Your task to perform on an android device: Search for razer naga on newegg.com, select the first entry, add it to the cart, then select checkout. Image 0: 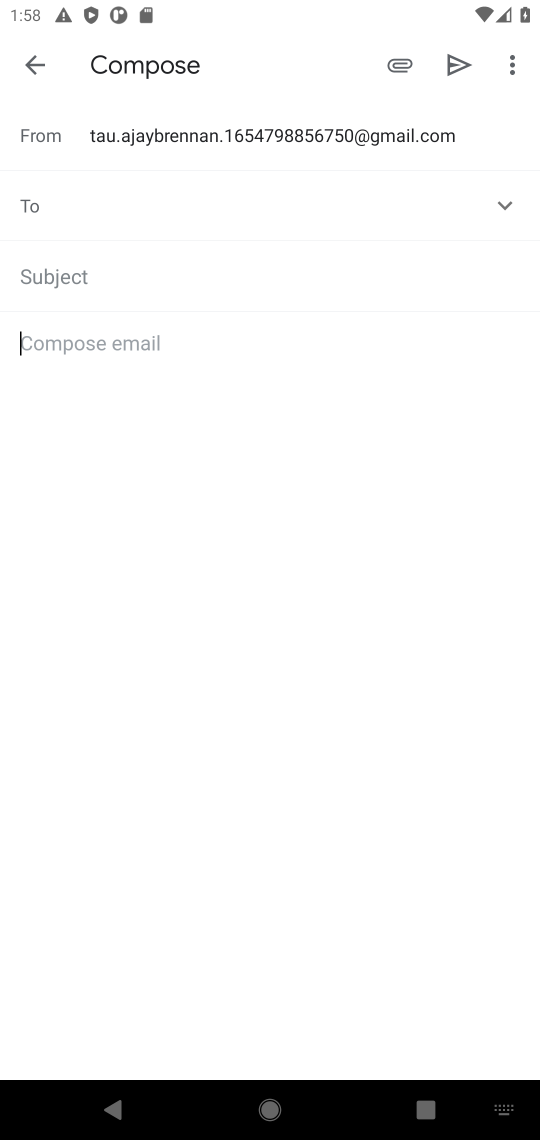
Step 0: press home button
Your task to perform on an android device: Search for razer naga on newegg.com, select the first entry, add it to the cart, then select checkout. Image 1: 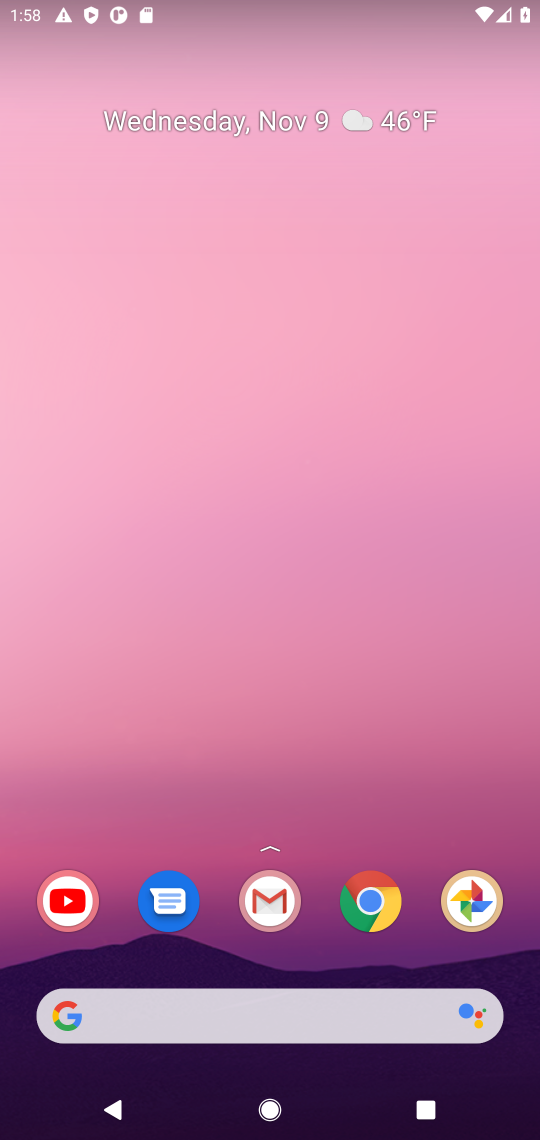
Step 1: click (364, 897)
Your task to perform on an android device: Search for razer naga on newegg.com, select the first entry, add it to the cart, then select checkout. Image 2: 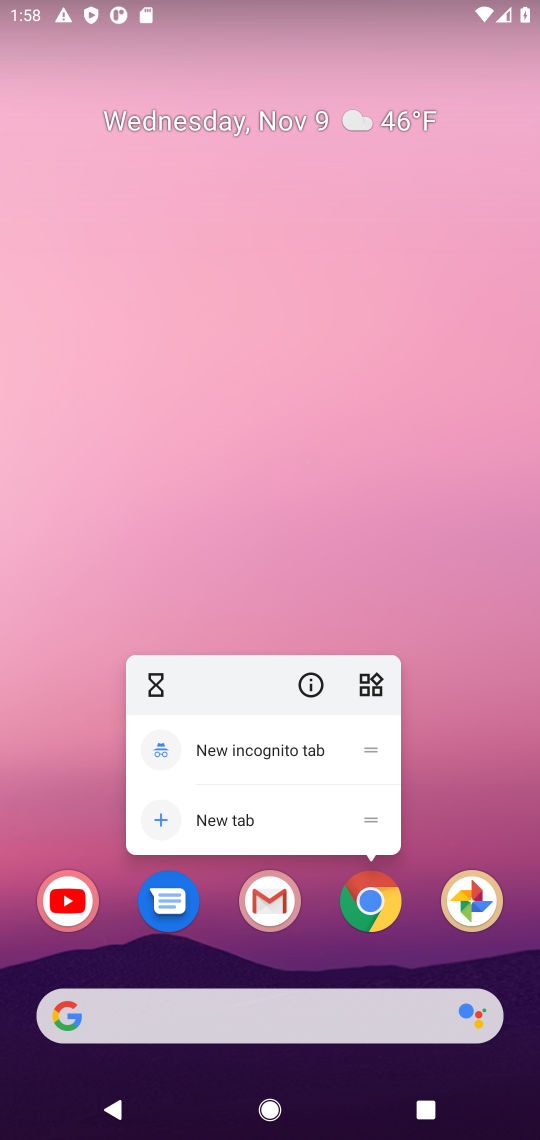
Step 2: click (364, 897)
Your task to perform on an android device: Search for razer naga on newegg.com, select the first entry, add it to the cart, then select checkout. Image 3: 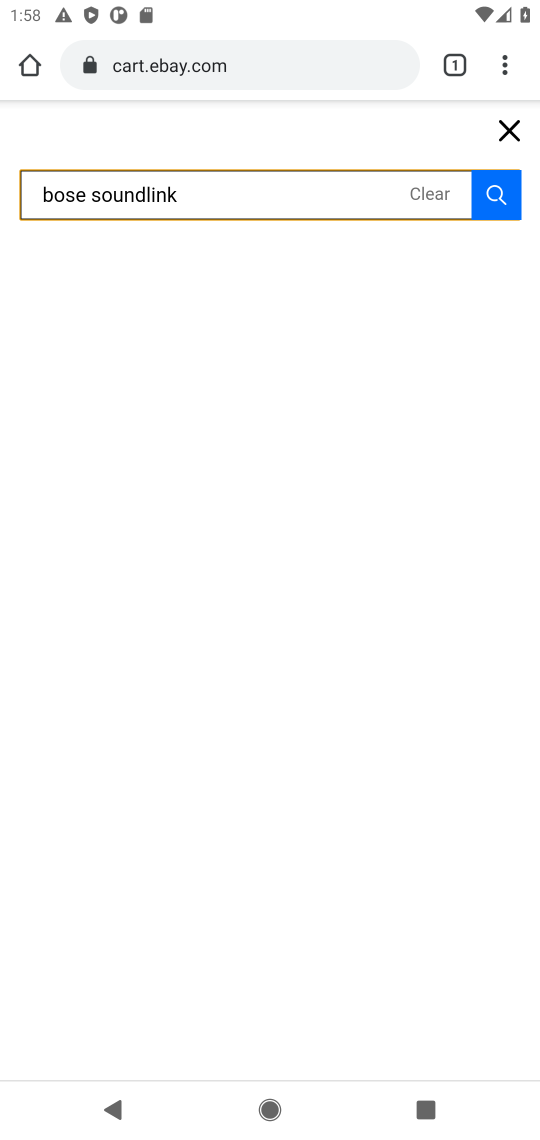
Step 3: click (239, 72)
Your task to perform on an android device: Search for razer naga on newegg.com, select the first entry, add it to the cart, then select checkout. Image 4: 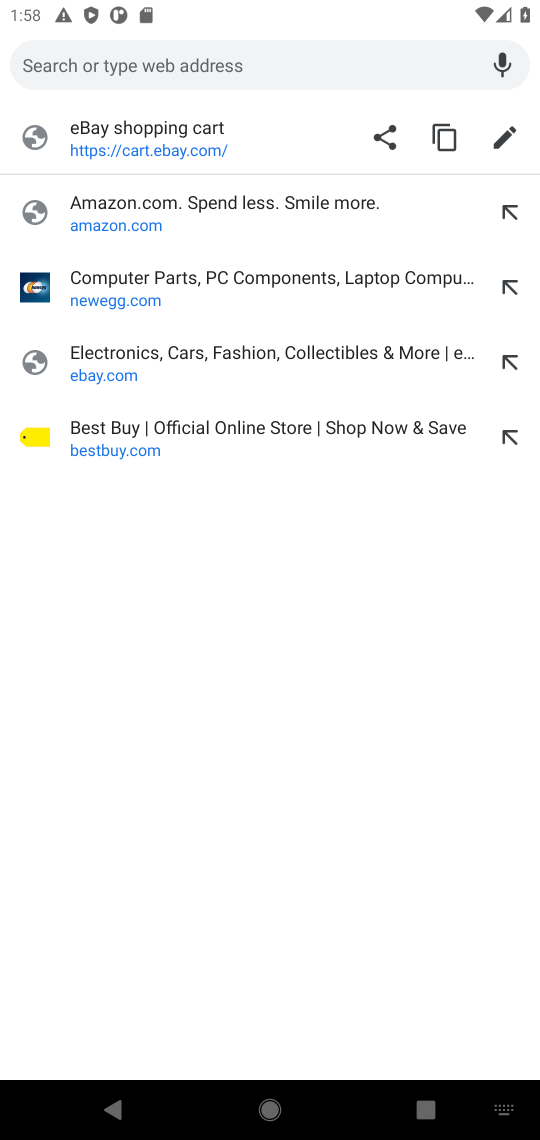
Step 4: type "newegg.com"
Your task to perform on an android device: Search for razer naga on newegg.com, select the first entry, add it to the cart, then select checkout. Image 5: 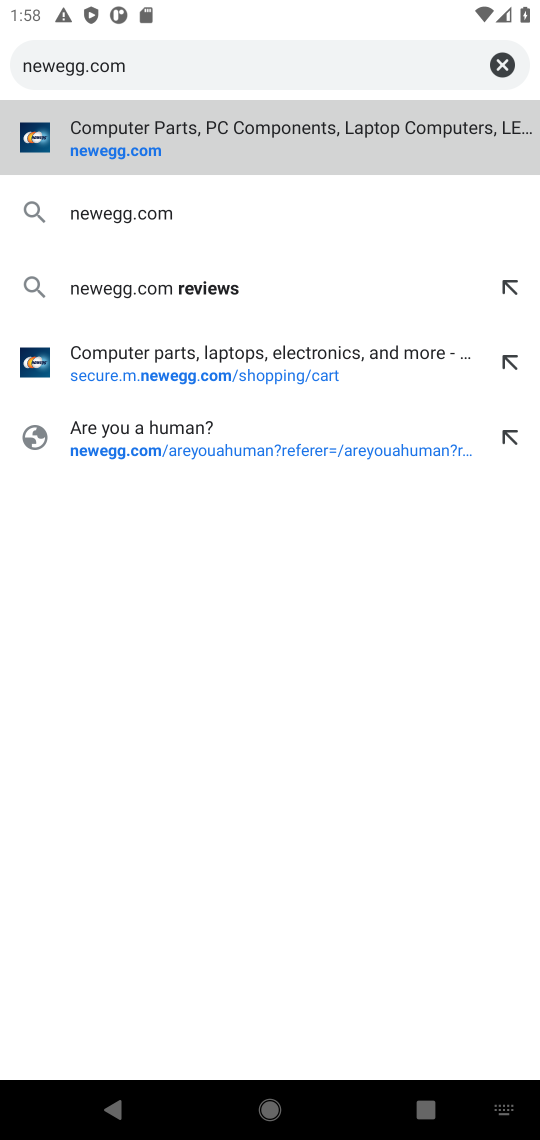
Step 5: press enter
Your task to perform on an android device: Search for razer naga on newegg.com, select the first entry, add it to the cart, then select checkout. Image 6: 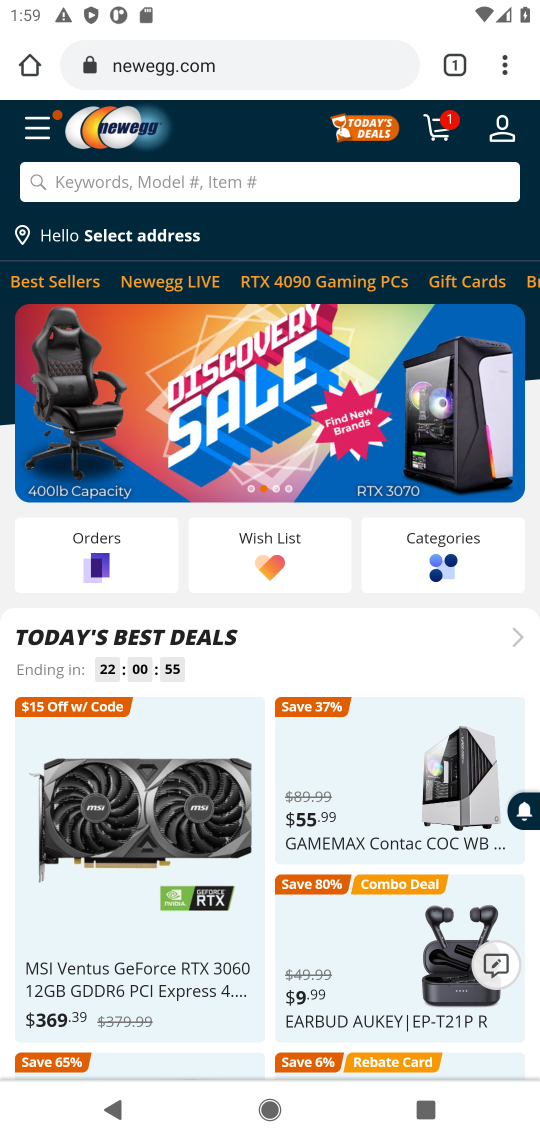
Step 6: click (352, 179)
Your task to perform on an android device: Search for razer naga on newegg.com, select the first entry, add it to the cart, then select checkout. Image 7: 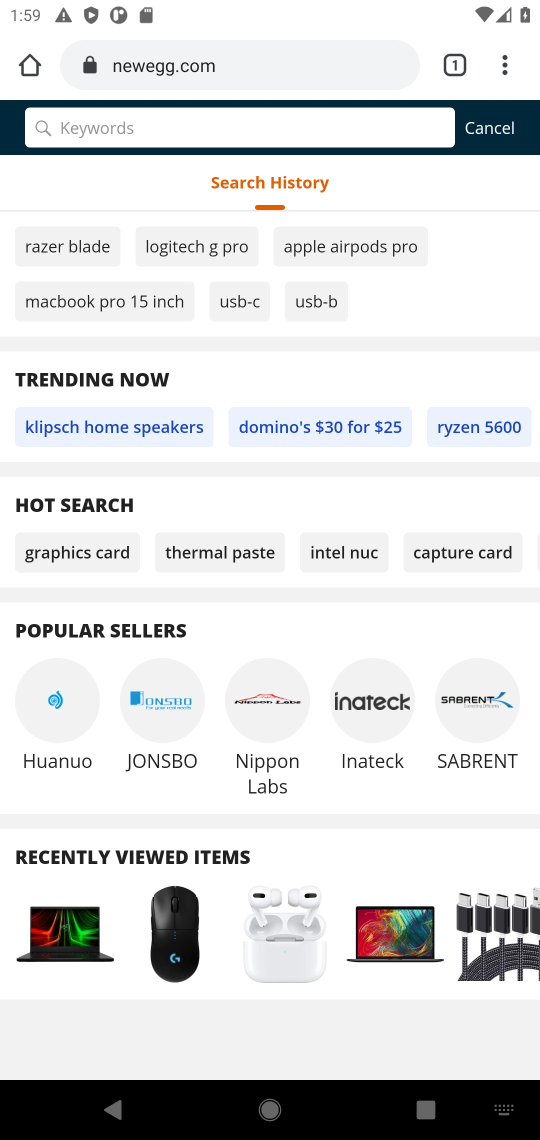
Step 7: type "razer naga"
Your task to perform on an android device: Search for razer naga on newegg.com, select the first entry, add it to the cart, then select checkout. Image 8: 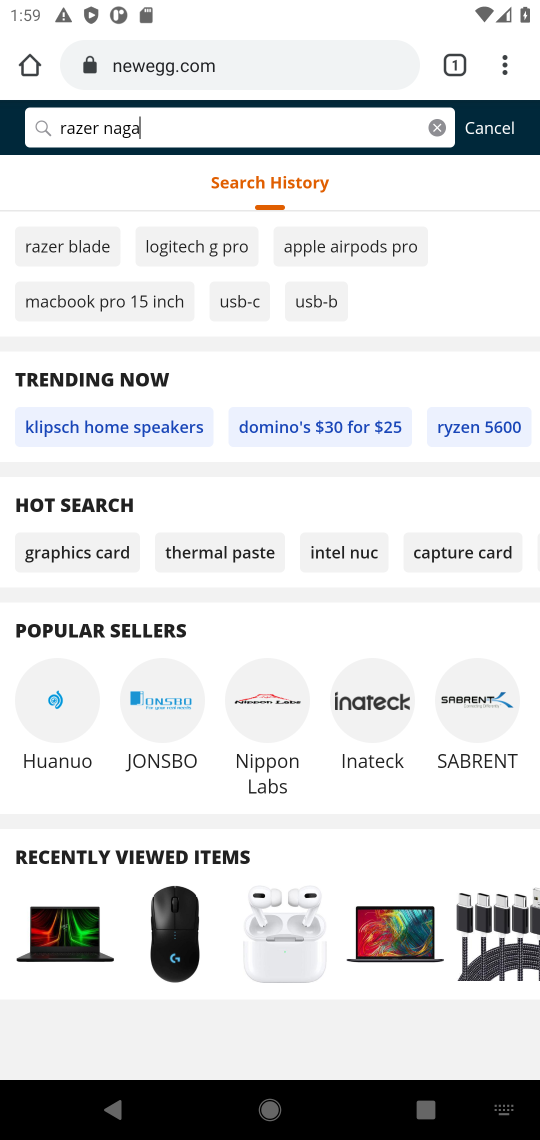
Step 8: press enter
Your task to perform on an android device: Search for razer naga on newegg.com, select the first entry, add it to the cart, then select checkout. Image 9: 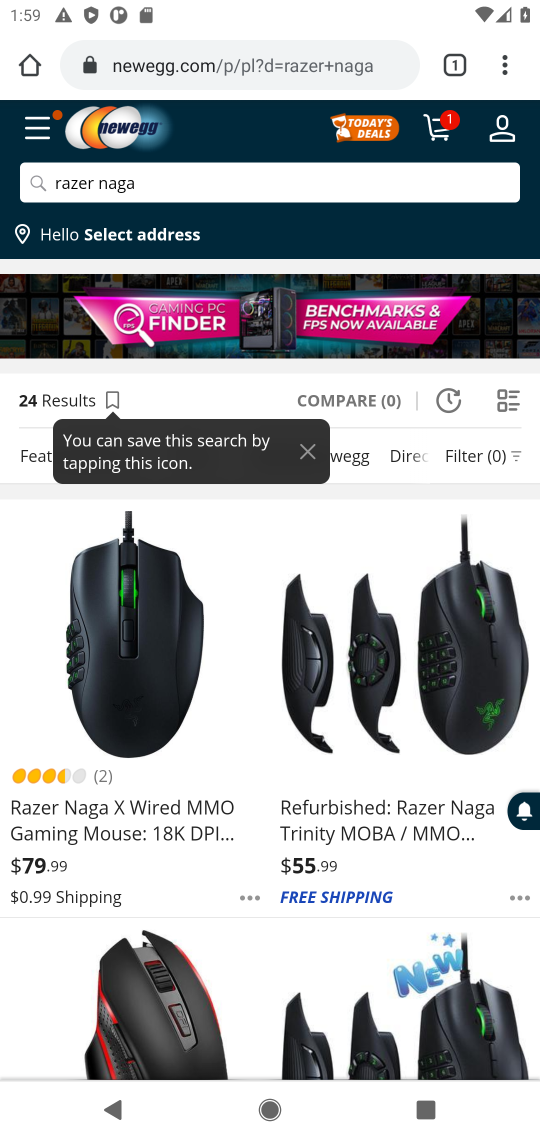
Step 9: click (160, 605)
Your task to perform on an android device: Search for razer naga on newegg.com, select the first entry, add it to the cart, then select checkout. Image 10: 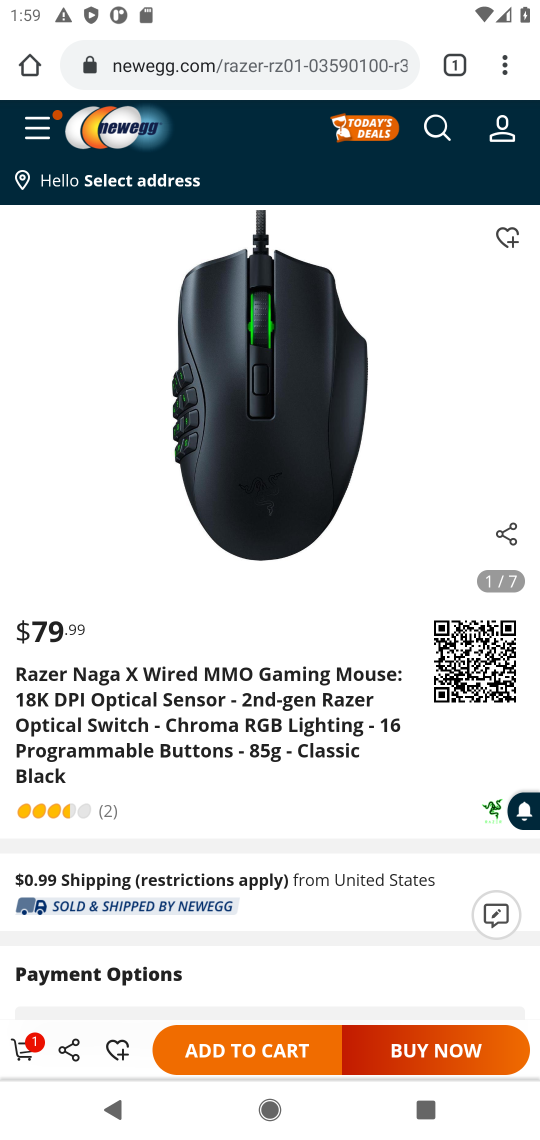
Step 10: click (215, 1047)
Your task to perform on an android device: Search for razer naga on newegg.com, select the first entry, add it to the cart, then select checkout. Image 11: 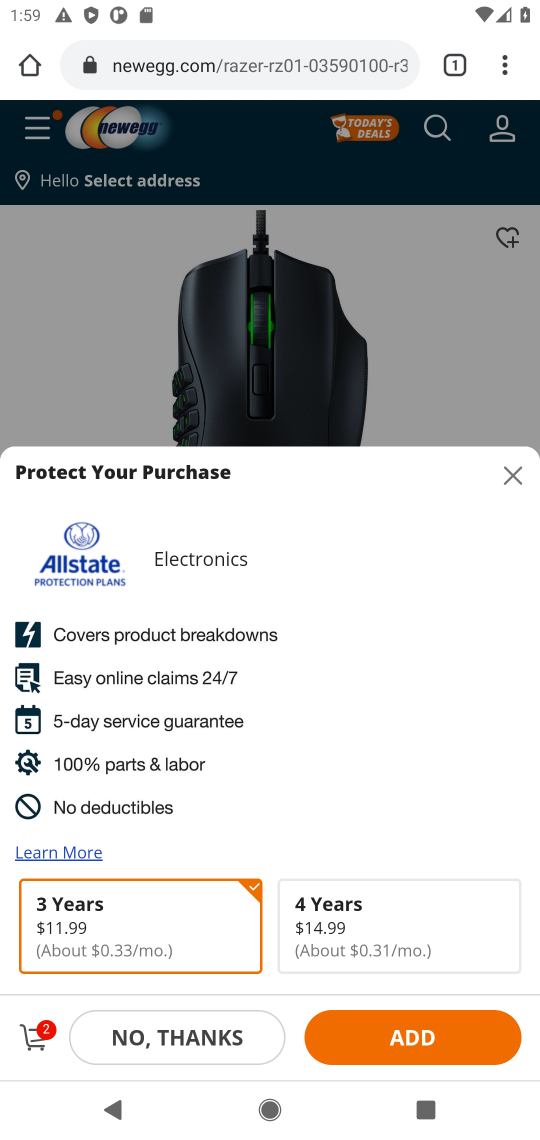
Step 11: click (506, 464)
Your task to perform on an android device: Search for razer naga on newegg.com, select the first entry, add it to the cart, then select checkout. Image 12: 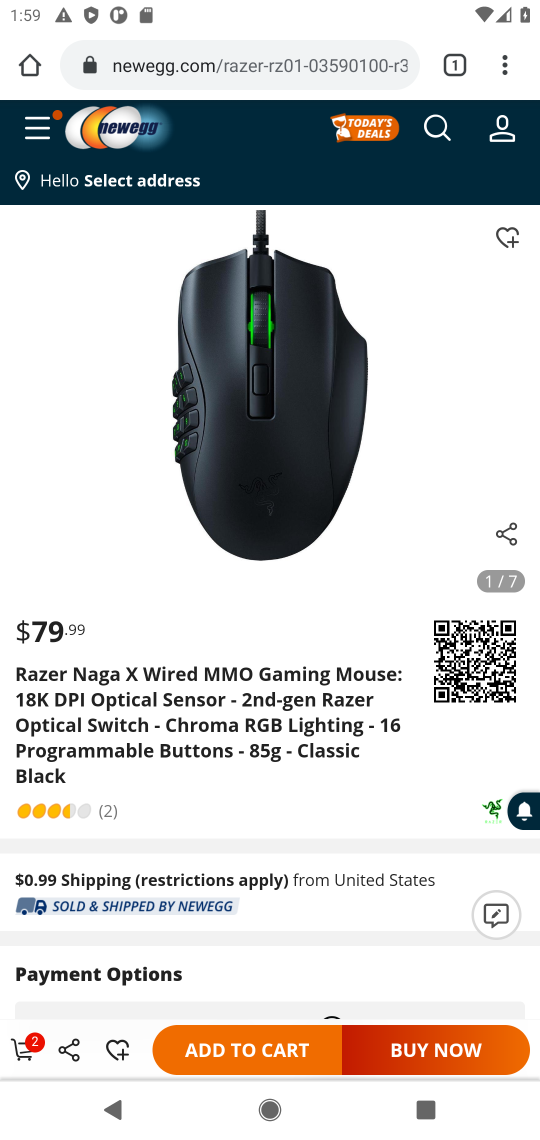
Step 12: click (23, 1056)
Your task to perform on an android device: Search for razer naga on newegg.com, select the first entry, add it to the cart, then select checkout. Image 13: 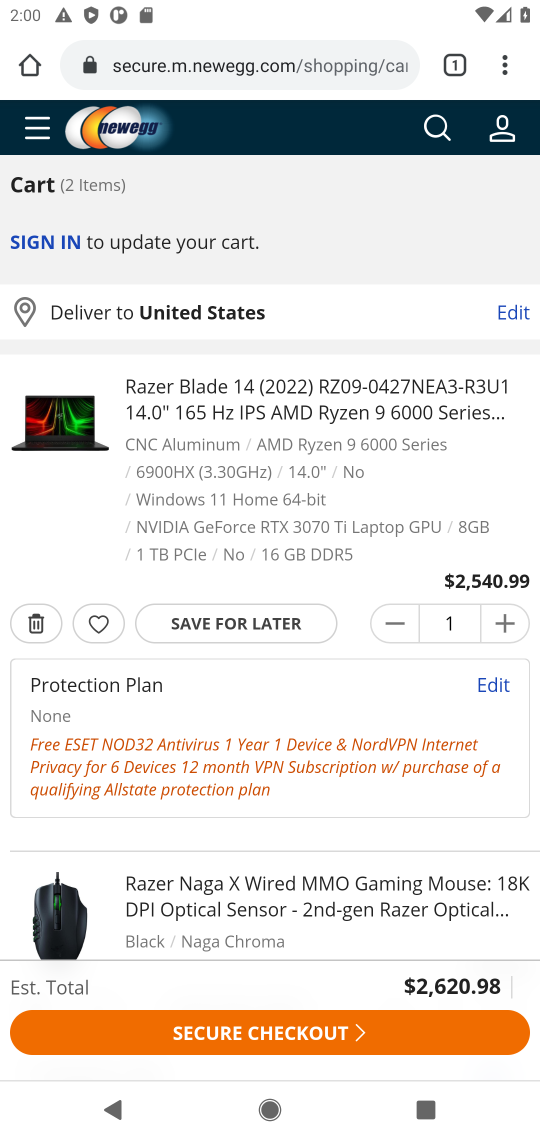
Step 13: click (255, 1016)
Your task to perform on an android device: Search for razer naga on newegg.com, select the first entry, add it to the cart, then select checkout. Image 14: 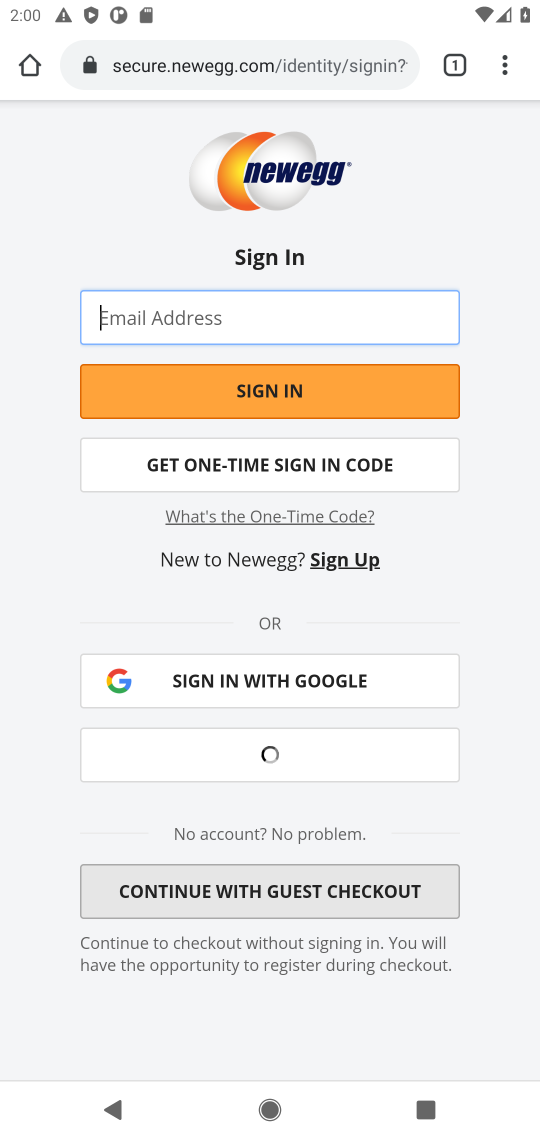
Step 14: task complete